Your task to perform on an android device: Turn off the flashlight Image 0: 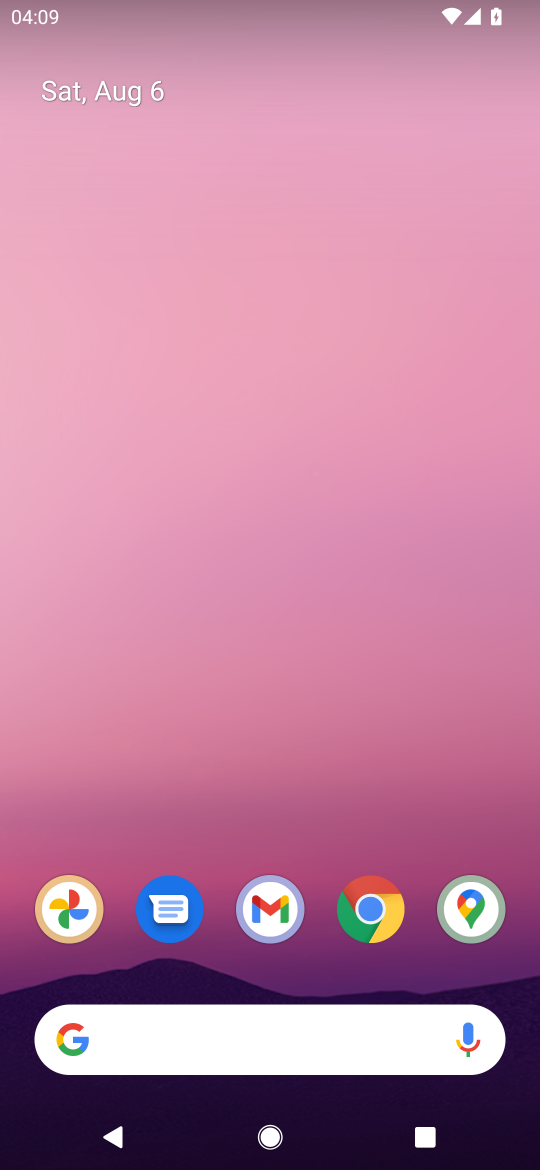
Step 0: drag from (183, 966) to (369, 76)
Your task to perform on an android device: Turn off the flashlight Image 1: 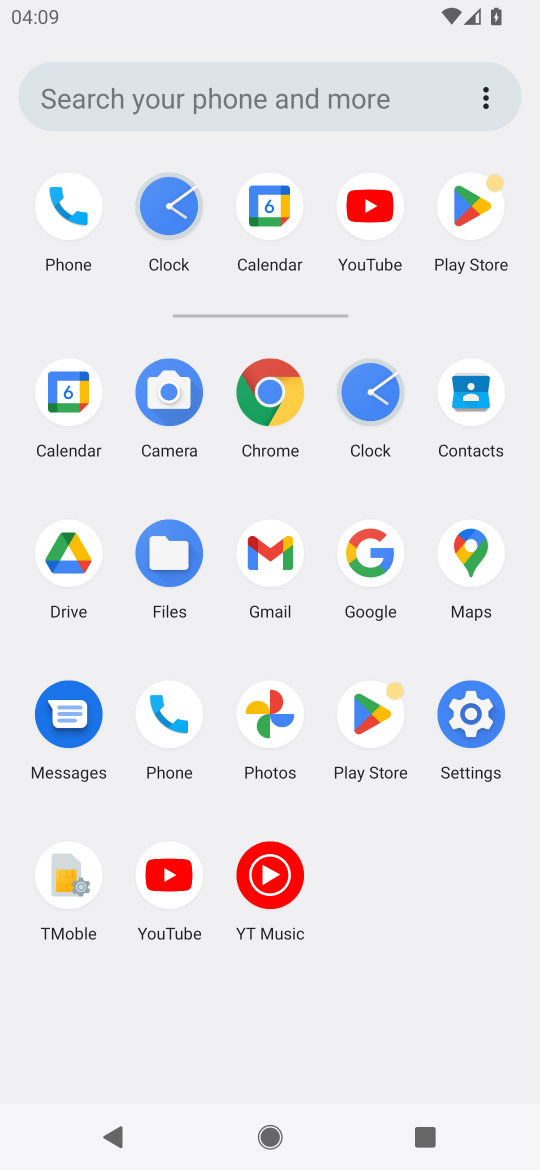
Step 1: click (456, 708)
Your task to perform on an android device: Turn off the flashlight Image 2: 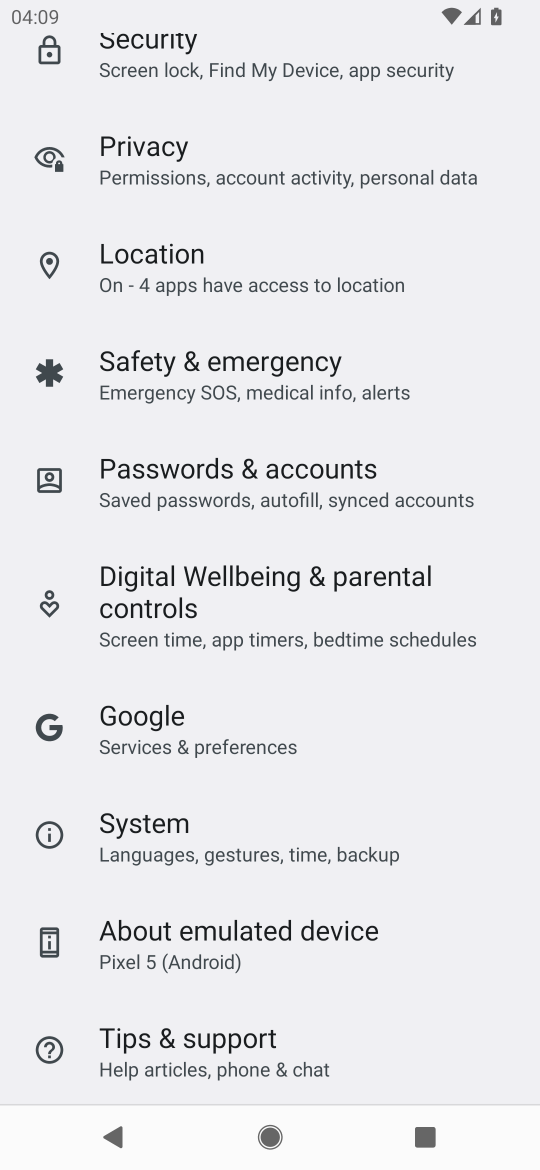
Step 2: drag from (219, 245) to (274, 1143)
Your task to perform on an android device: Turn off the flashlight Image 3: 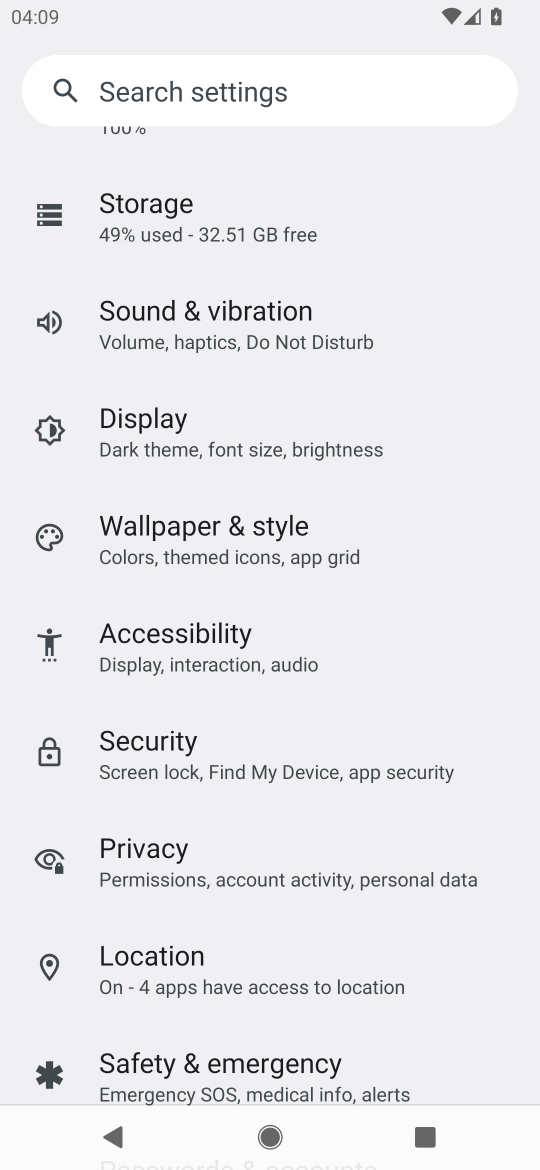
Step 3: click (204, 94)
Your task to perform on an android device: Turn off the flashlight Image 4: 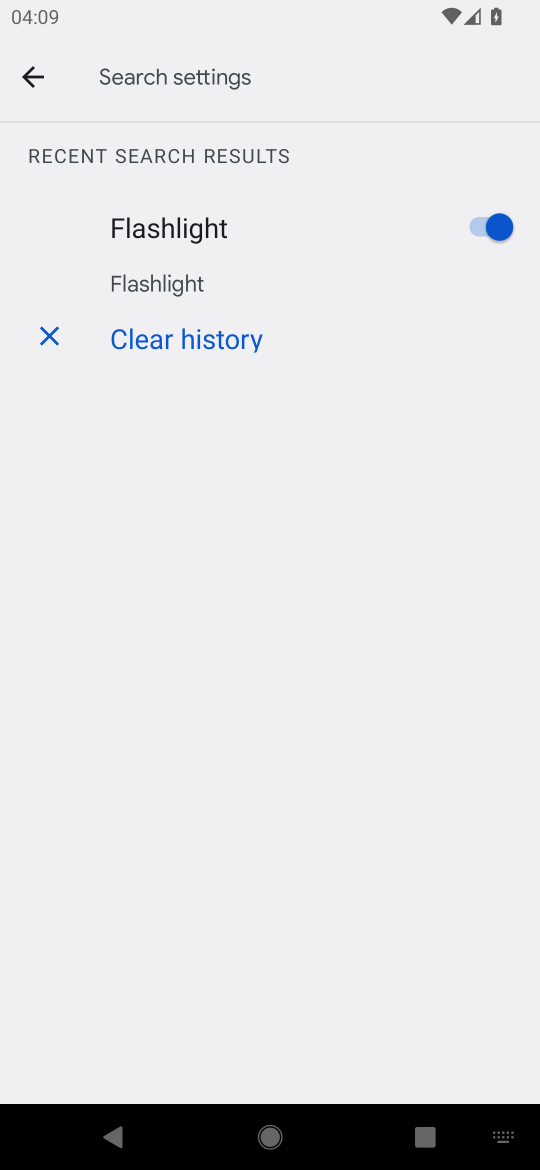
Step 4: type "flashlight"
Your task to perform on an android device: Turn off the flashlight Image 5: 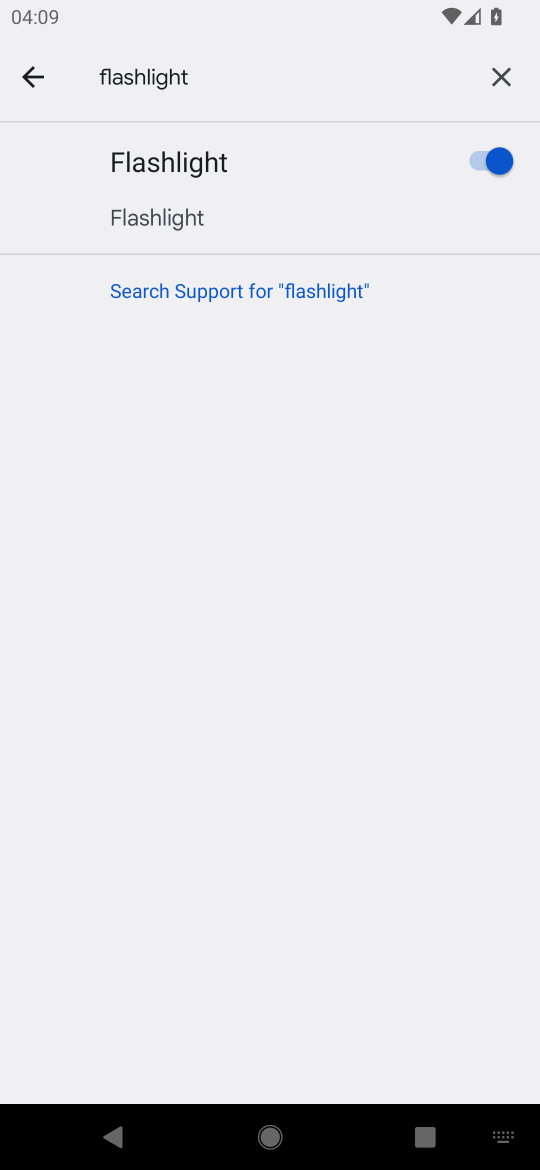
Step 5: click (484, 161)
Your task to perform on an android device: Turn off the flashlight Image 6: 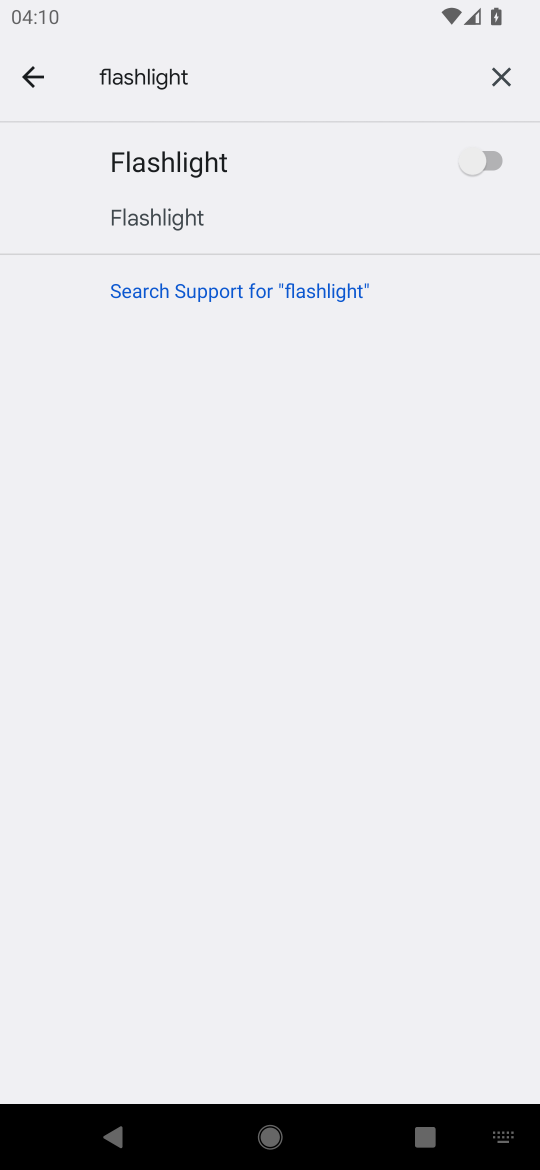
Step 6: task complete